Your task to perform on an android device: turn on bluetooth scan Image 0: 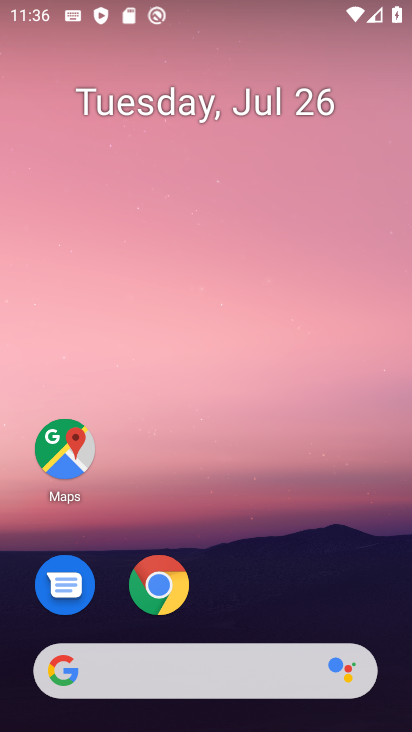
Step 0: drag from (270, 612) to (311, 5)
Your task to perform on an android device: turn on bluetooth scan Image 1: 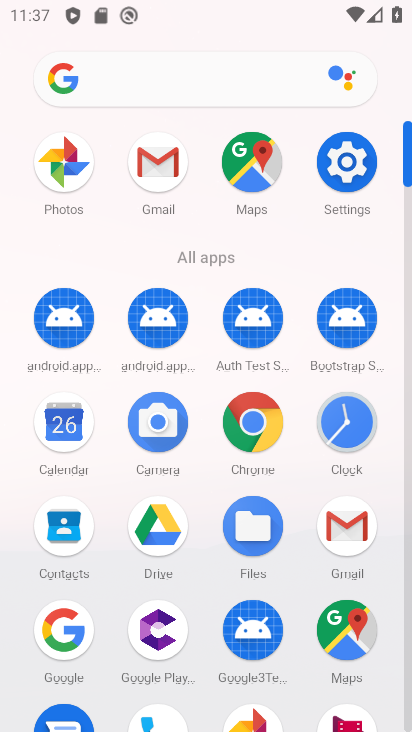
Step 1: click (347, 158)
Your task to perform on an android device: turn on bluetooth scan Image 2: 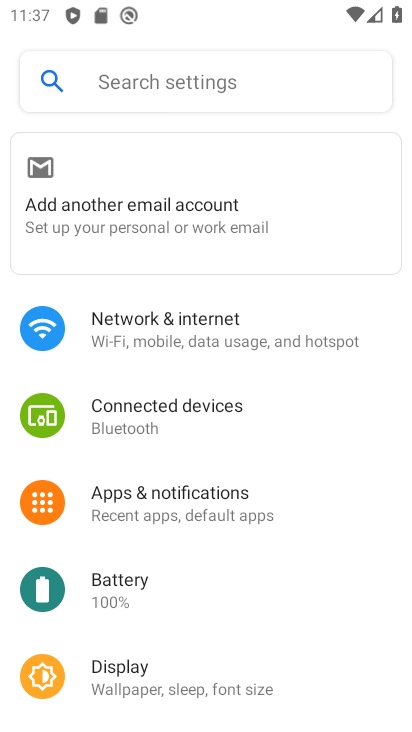
Step 2: drag from (210, 629) to (301, 0)
Your task to perform on an android device: turn on bluetooth scan Image 3: 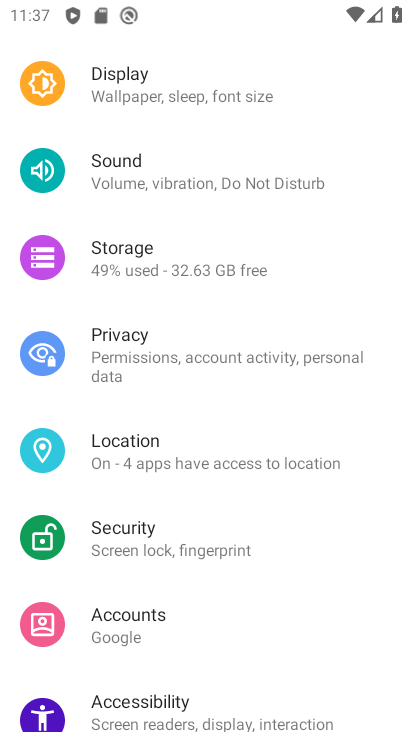
Step 3: click (166, 457)
Your task to perform on an android device: turn on bluetooth scan Image 4: 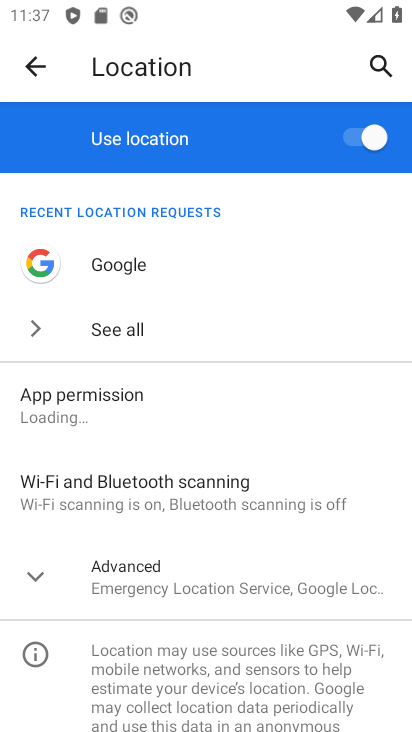
Step 4: click (175, 491)
Your task to perform on an android device: turn on bluetooth scan Image 5: 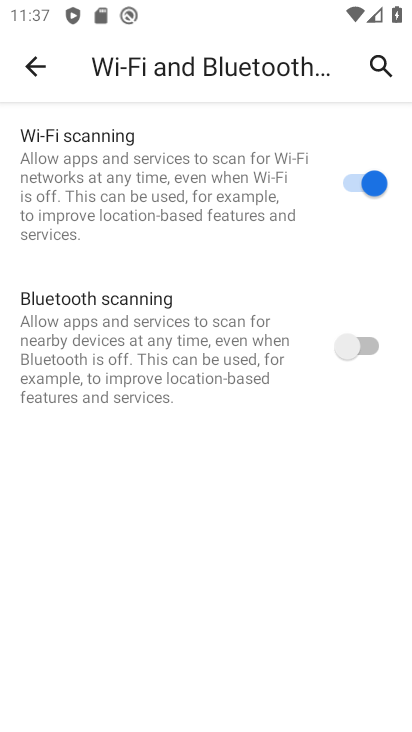
Step 5: click (360, 339)
Your task to perform on an android device: turn on bluetooth scan Image 6: 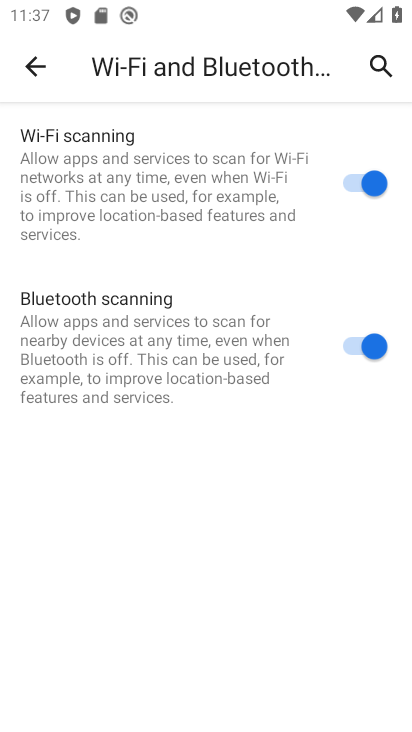
Step 6: task complete